Your task to perform on an android device: change text size in settings app Image 0: 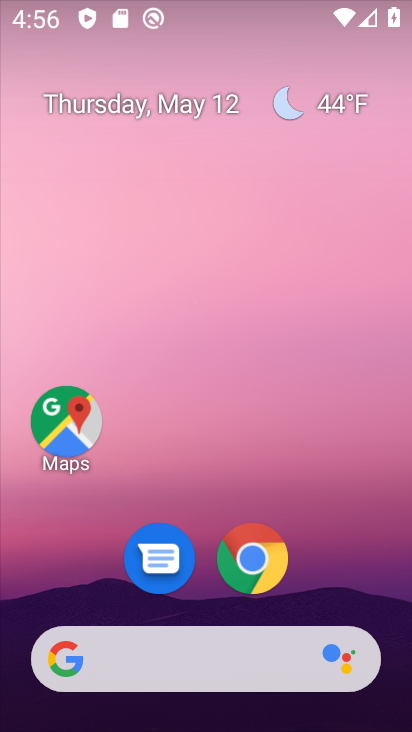
Step 0: drag from (349, 558) to (299, 38)
Your task to perform on an android device: change text size in settings app Image 1: 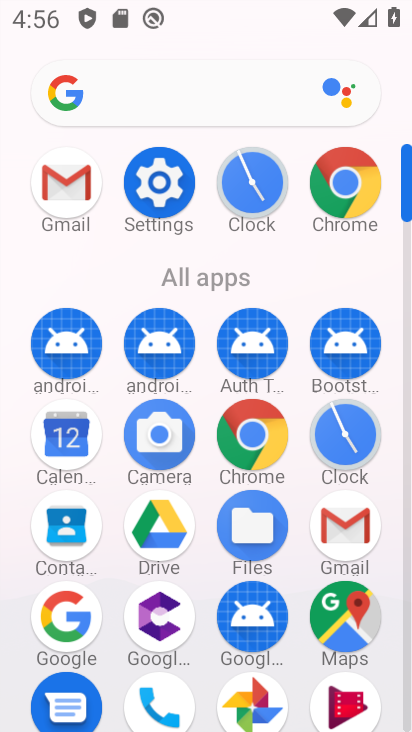
Step 1: click (161, 184)
Your task to perform on an android device: change text size in settings app Image 2: 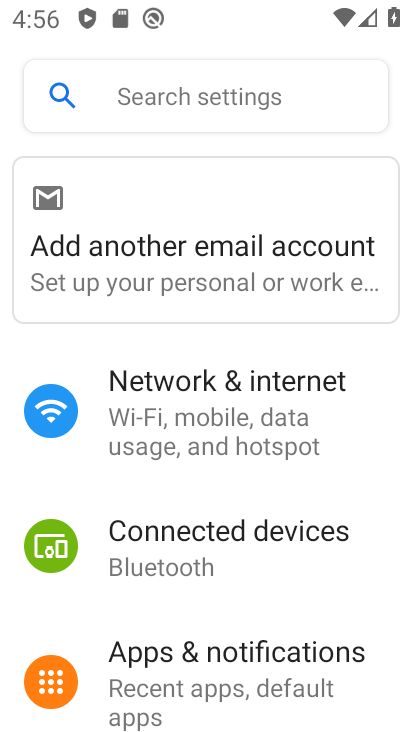
Step 2: drag from (285, 609) to (322, 215)
Your task to perform on an android device: change text size in settings app Image 3: 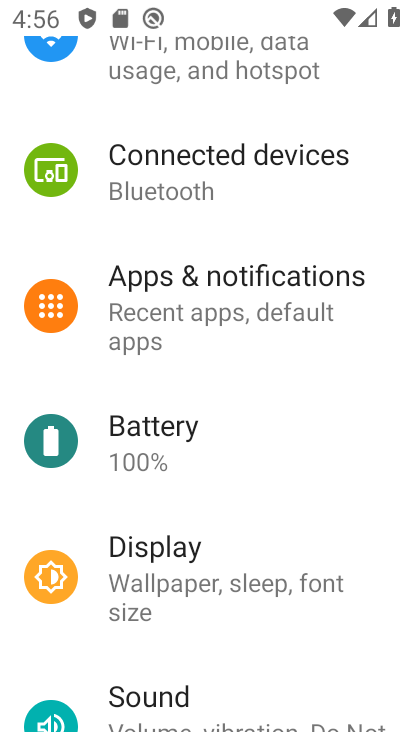
Step 3: click (203, 548)
Your task to perform on an android device: change text size in settings app Image 4: 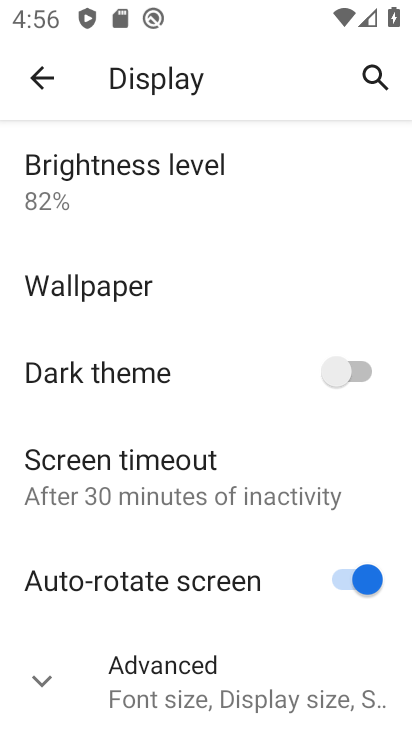
Step 4: click (94, 688)
Your task to perform on an android device: change text size in settings app Image 5: 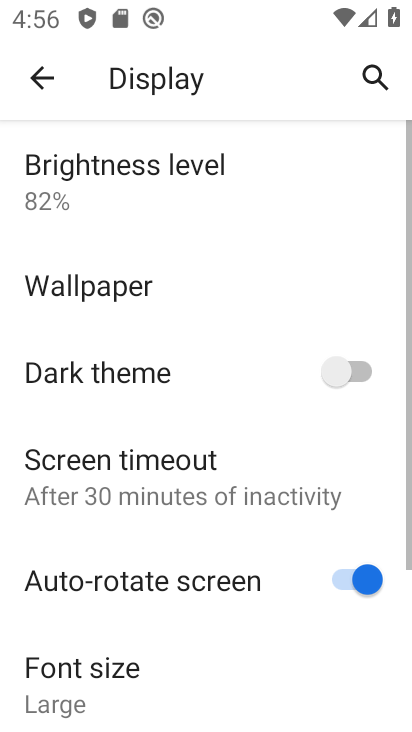
Step 5: drag from (208, 630) to (184, 249)
Your task to perform on an android device: change text size in settings app Image 6: 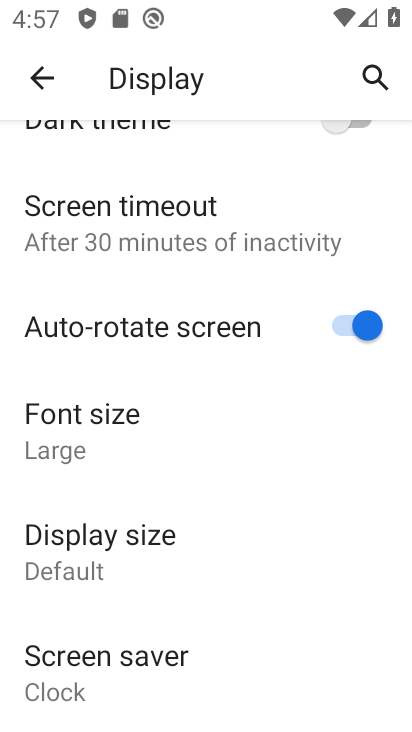
Step 6: drag from (166, 253) to (185, 662)
Your task to perform on an android device: change text size in settings app Image 7: 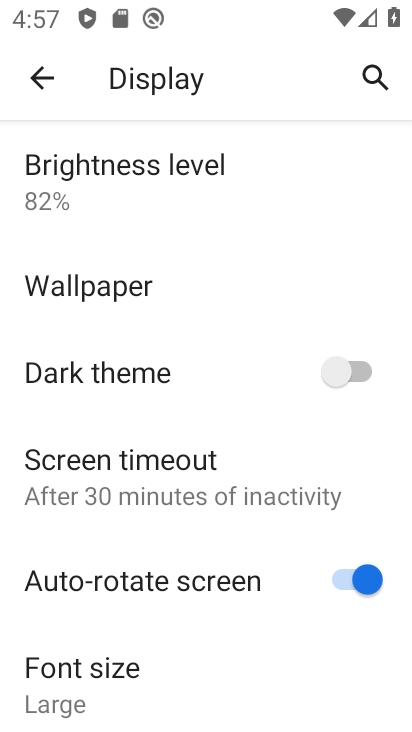
Step 7: drag from (157, 564) to (182, 194)
Your task to perform on an android device: change text size in settings app Image 8: 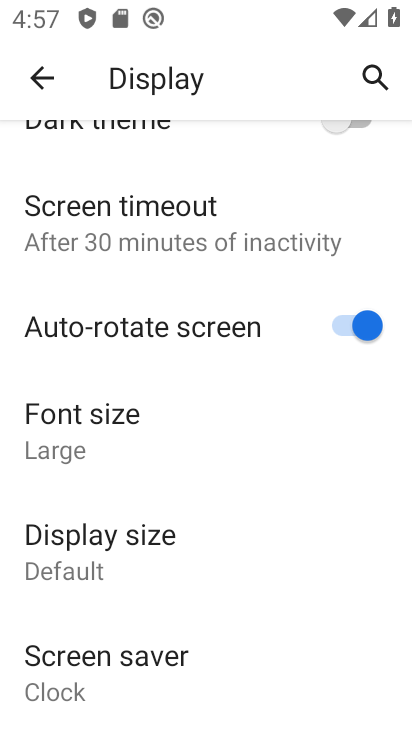
Step 8: drag from (184, 582) to (203, 325)
Your task to perform on an android device: change text size in settings app Image 9: 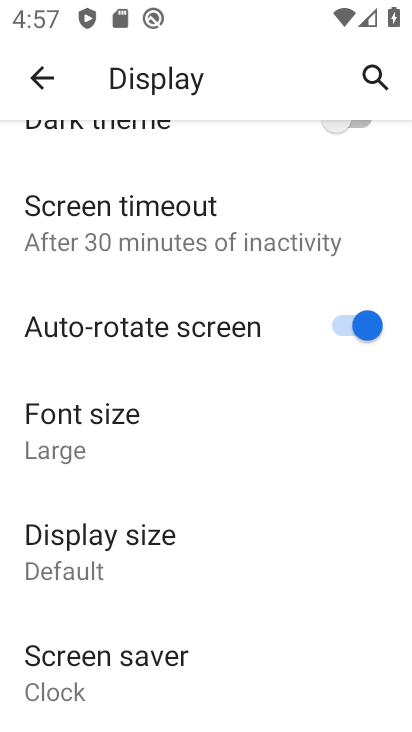
Step 9: click (116, 428)
Your task to perform on an android device: change text size in settings app Image 10: 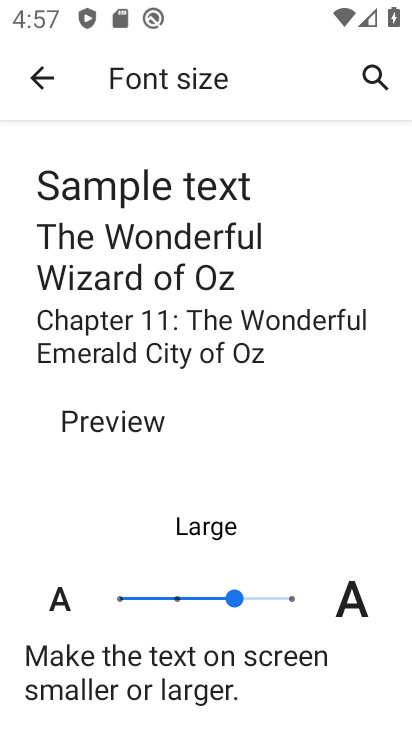
Step 10: click (292, 603)
Your task to perform on an android device: change text size in settings app Image 11: 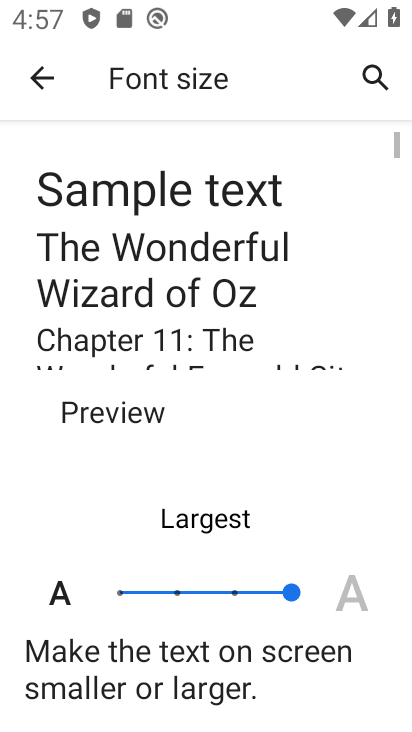
Step 11: task complete